Your task to perform on an android device: Open location settings Image 0: 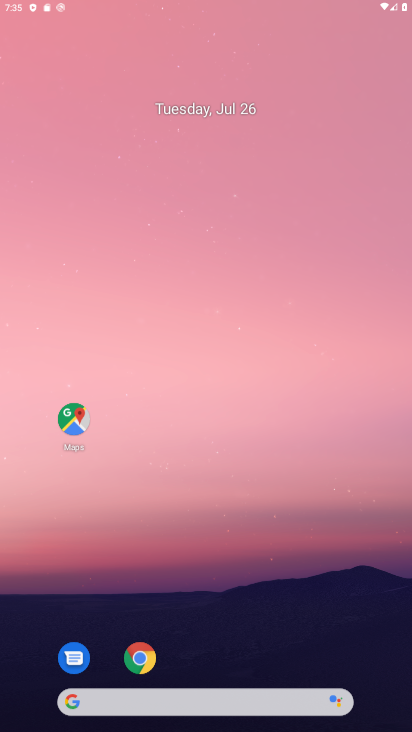
Step 0: click (217, 130)
Your task to perform on an android device: Open location settings Image 1: 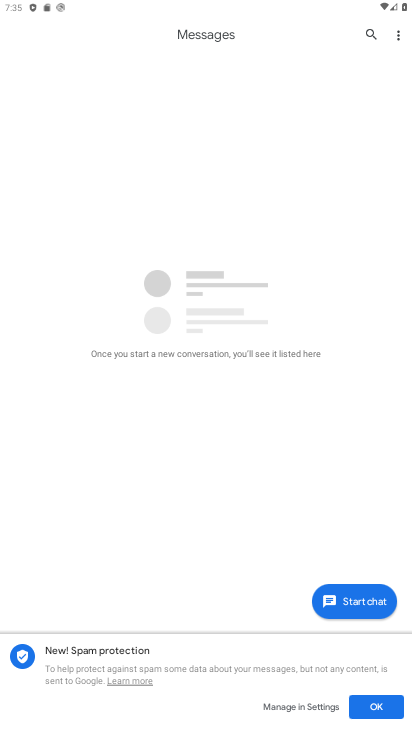
Step 1: press home button
Your task to perform on an android device: Open location settings Image 2: 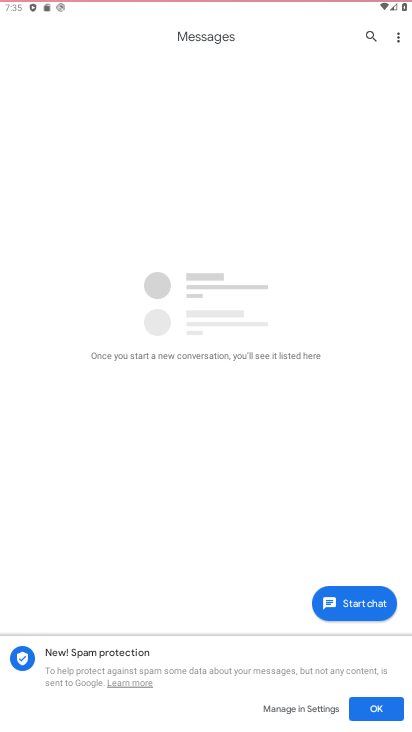
Step 2: press home button
Your task to perform on an android device: Open location settings Image 3: 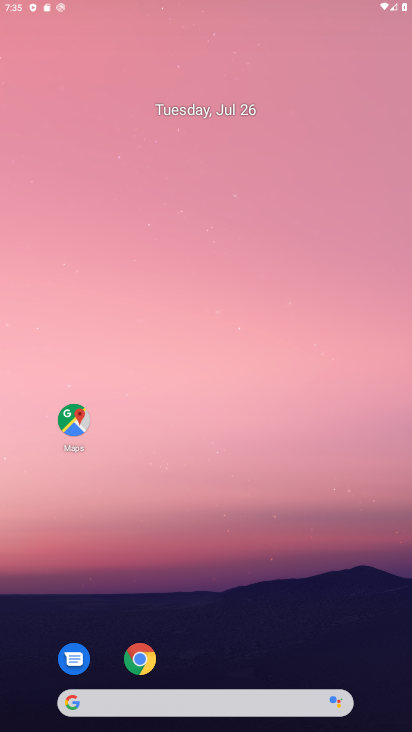
Step 3: drag from (181, 624) to (235, 58)
Your task to perform on an android device: Open location settings Image 4: 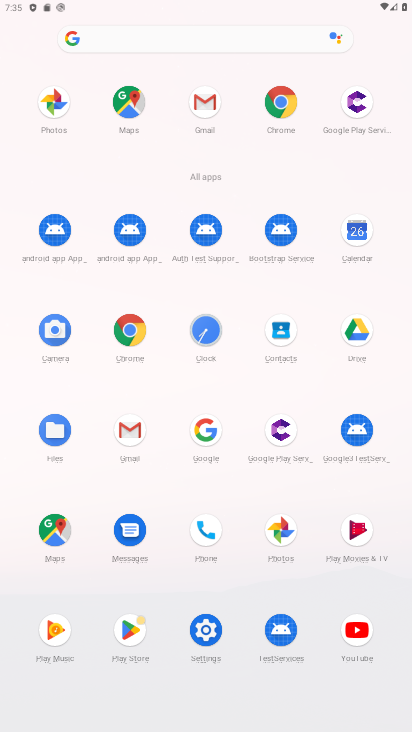
Step 4: click (193, 631)
Your task to perform on an android device: Open location settings Image 5: 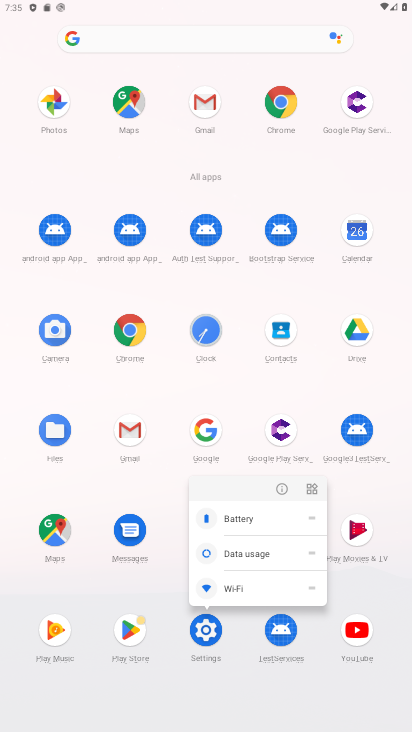
Step 5: click (283, 483)
Your task to perform on an android device: Open location settings Image 6: 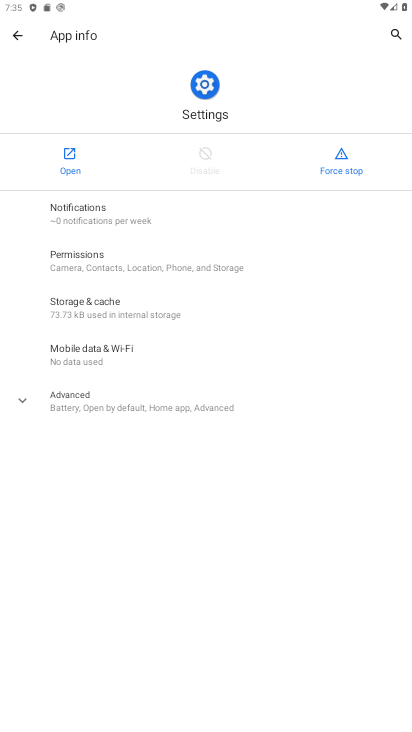
Step 6: click (71, 152)
Your task to perform on an android device: Open location settings Image 7: 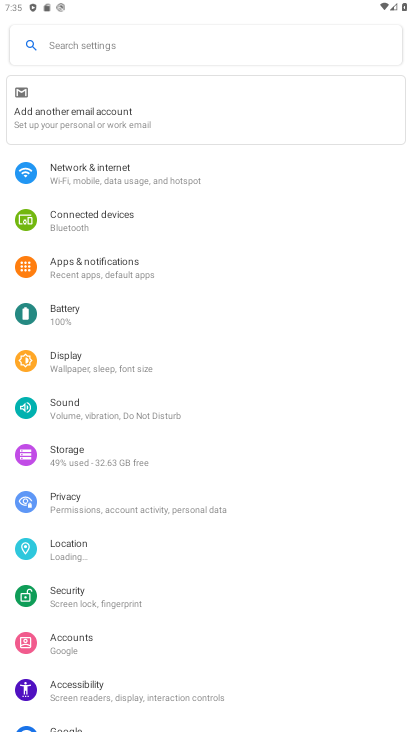
Step 7: click (93, 546)
Your task to perform on an android device: Open location settings Image 8: 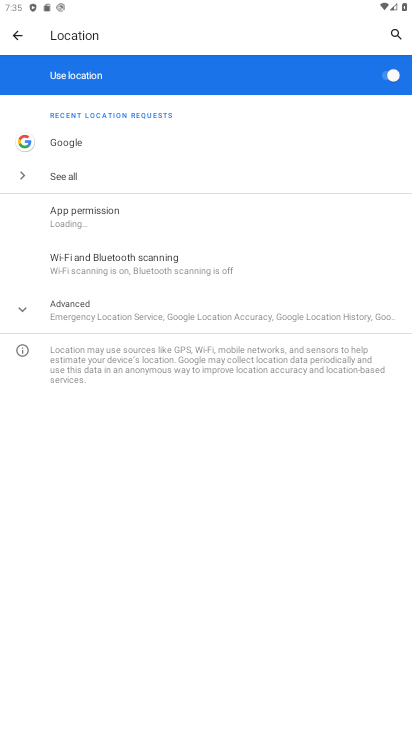
Step 8: click (120, 300)
Your task to perform on an android device: Open location settings Image 9: 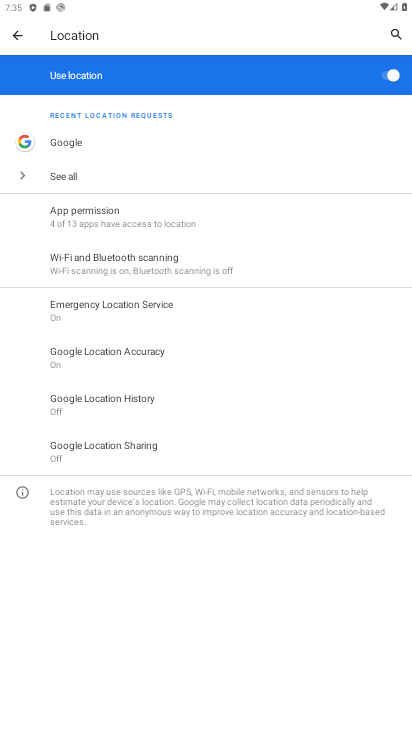
Step 9: task complete